Your task to perform on an android device: Add logitech g pro to the cart on ebay Image 0: 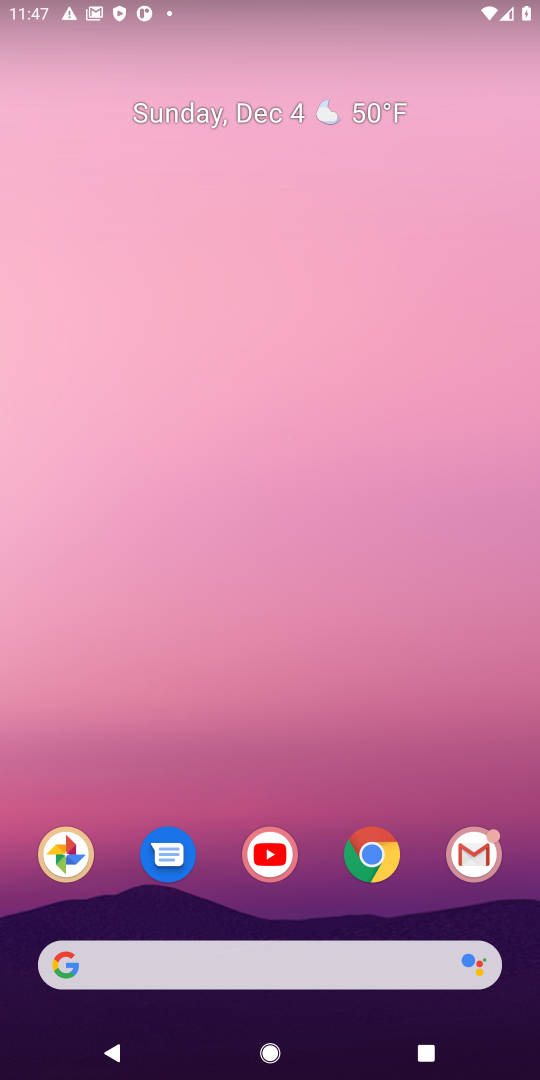
Step 0: task complete